Your task to perform on an android device: Search for lg ultragear on costco.com, select the first entry, add it to the cart, then select checkout. Image 0: 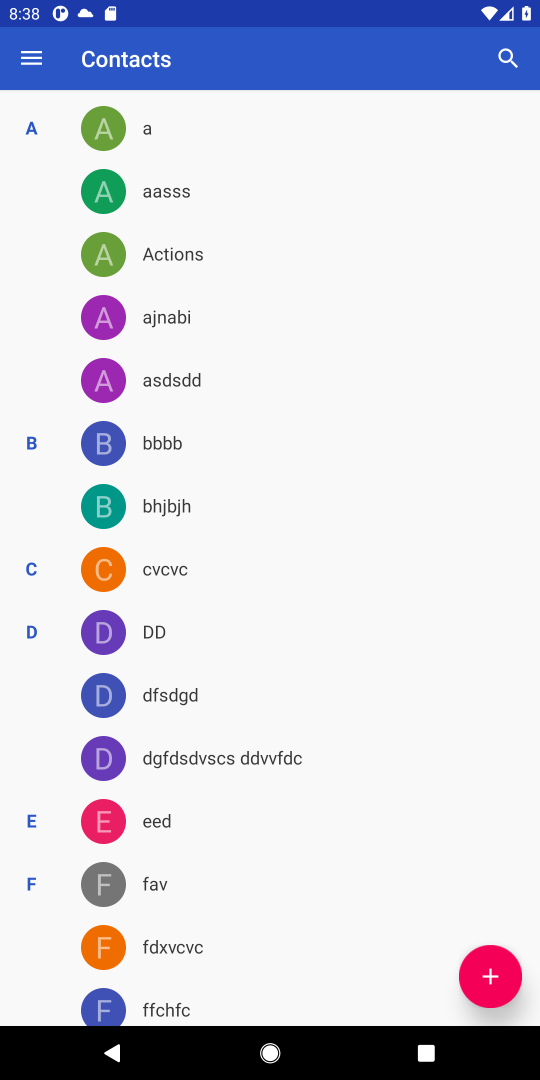
Step 0: press home button
Your task to perform on an android device: Search for lg ultragear on costco.com, select the first entry, add it to the cart, then select checkout. Image 1: 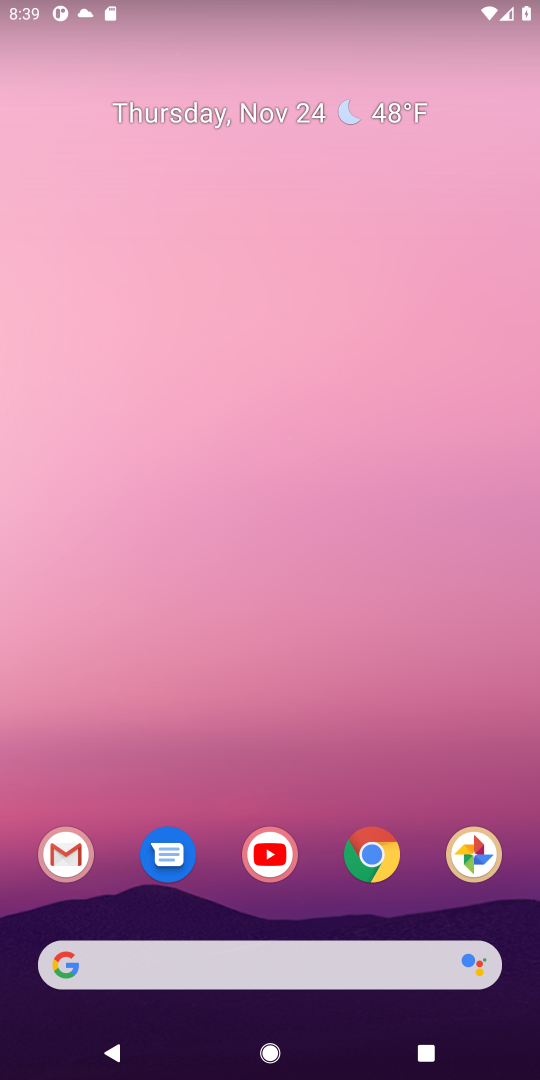
Step 1: click (368, 859)
Your task to perform on an android device: Search for lg ultragear on costco.com, select the first entry, add it to the cart, then select checkout. Image 2: 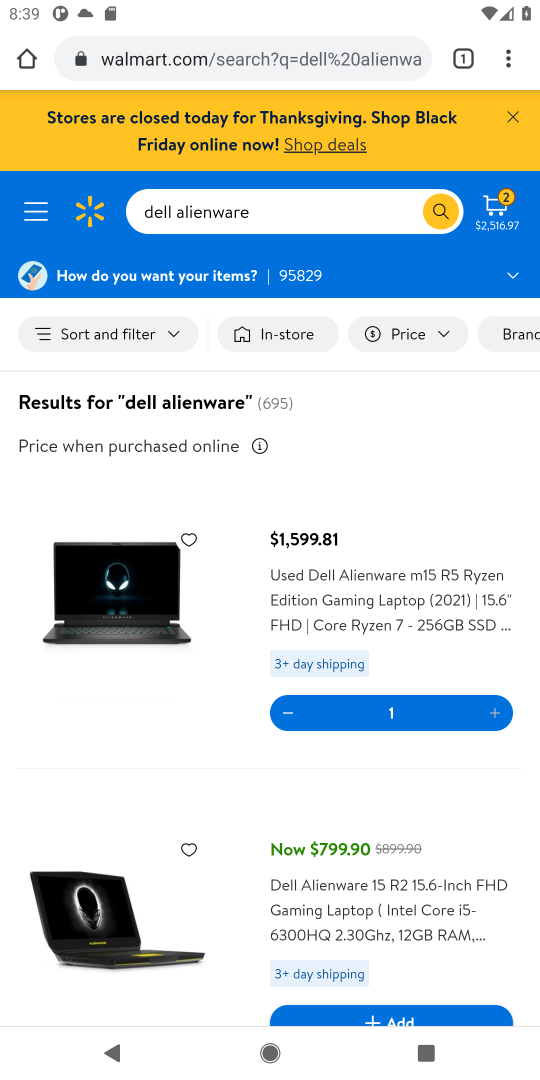
Step 2: click (227, 57)
Your task to perform on an android device: Search for lg ultragear on costco.com, select the first entry, add it to the cart, then select checkout. Image 3: 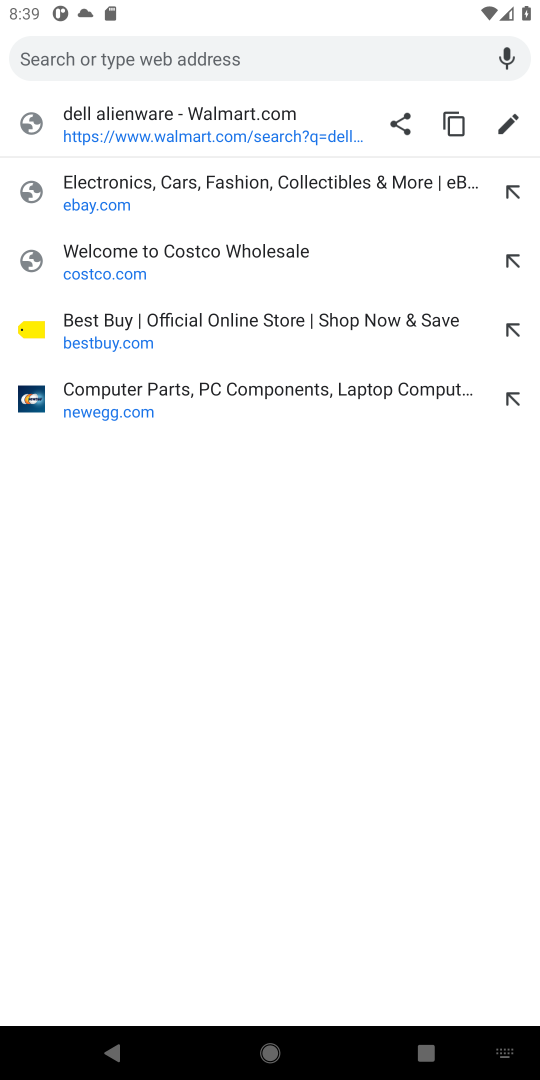
Step 3: click (96, 271)
Your task to perform on an android device: Search for lg ultragear on costco.com, select the first entry, add it to the cart, then select checkout. Image 4: 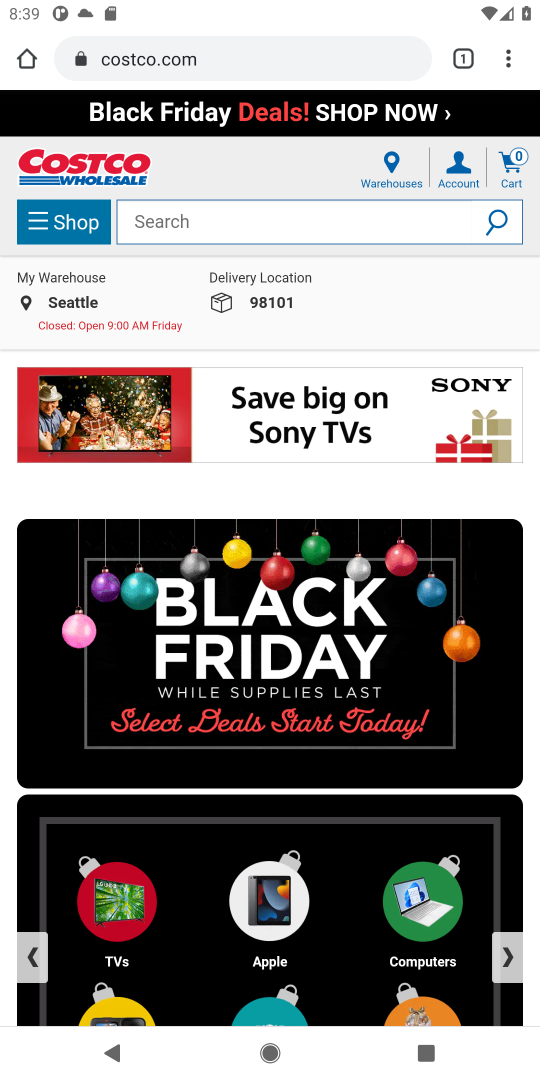
Step 4: click (254, 215)
Your task to perform on an android device: Search for lg ultragear on costco.com, select the first entry, add it to the cart, then select checkout. Image 5: 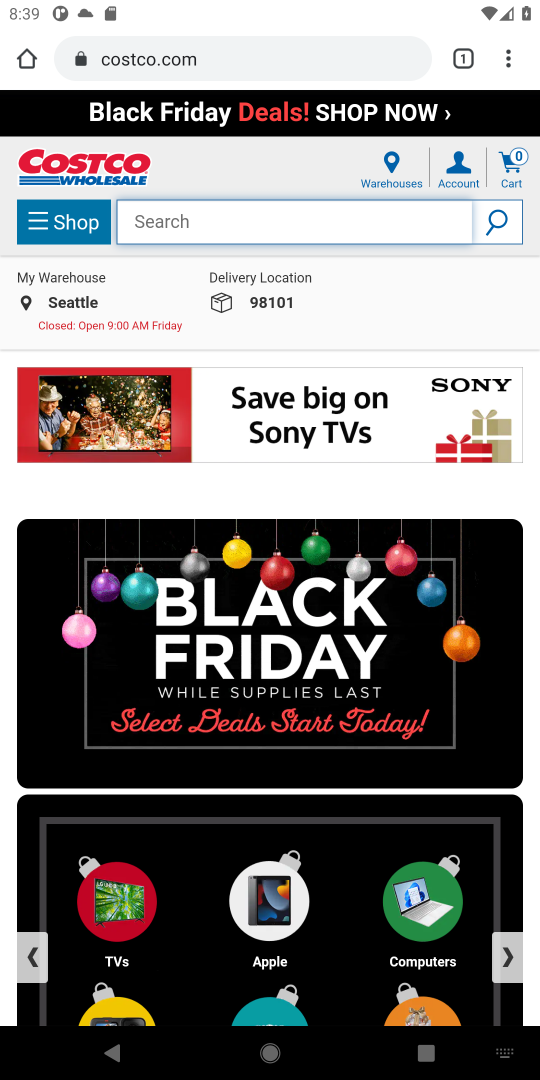
Step 5: type " lg ultragear"
Your task to perform on an android device: Search for lg ultragear on costco.com, select the first entry, add it to the cart, then select checkout. Image 6: 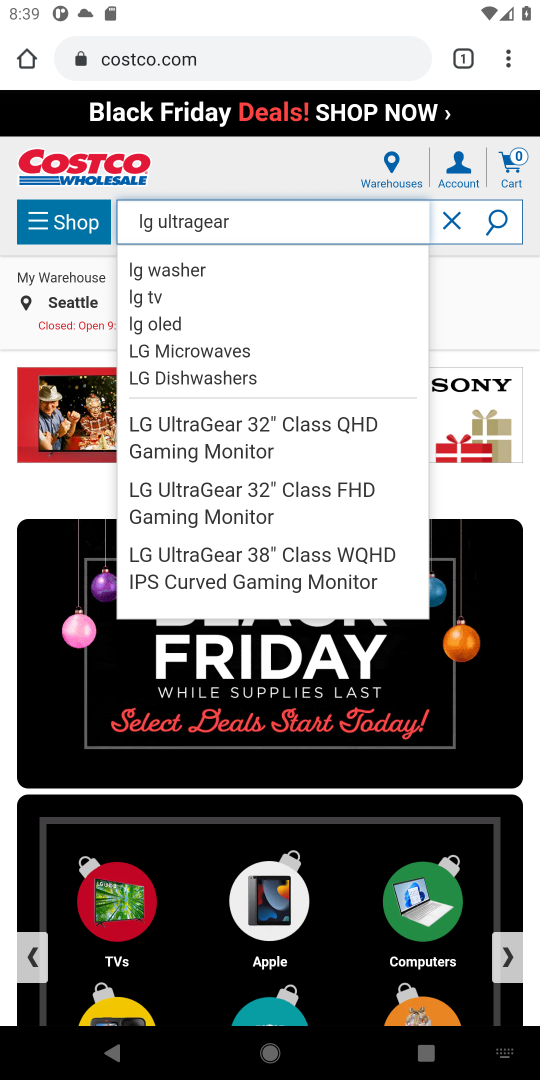
Step 6: click (489, 228)
Your task to perform on an android device: Search for lg ultragear on costco.com, select the first entry, add it to the cart, then select checkout. Image 7: 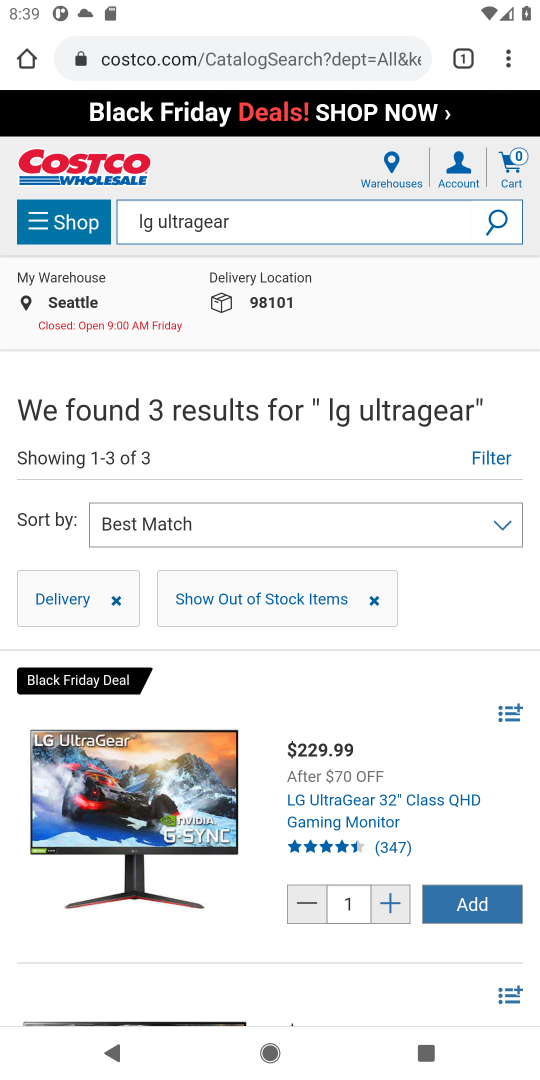
Step 7: click (473, 912)
Your task to perform on an android device: Search for lg ultragear on costco.com, select the first entry, add it to the cart, then select checkout. Image 8: 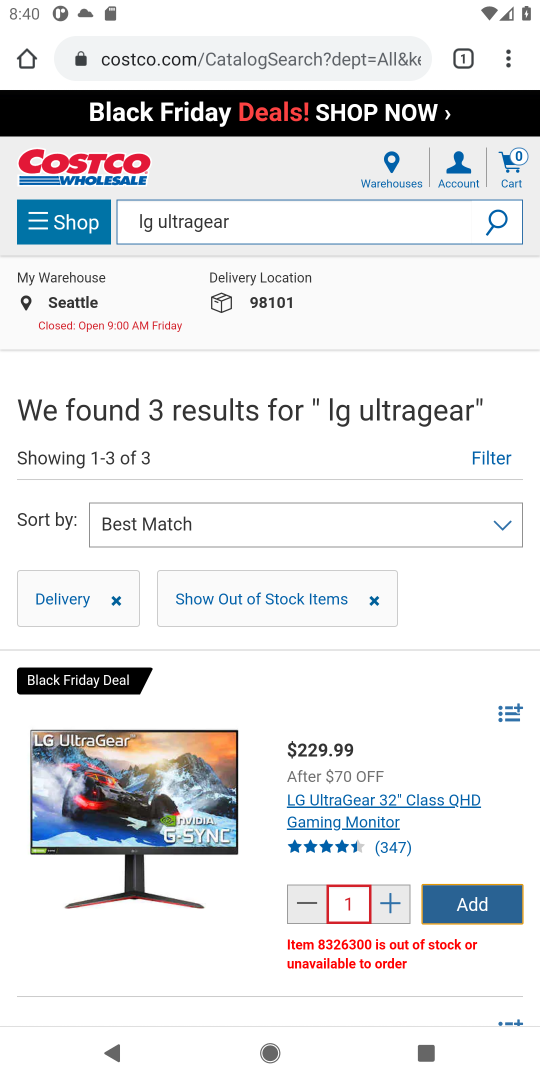
Step 8: drag from (155, 795) to (185, 582)
Your task to perform on an android device: Search for lg ultragear on costco.com, select the first entry, add it to the cart, then select checkout. Image 9: 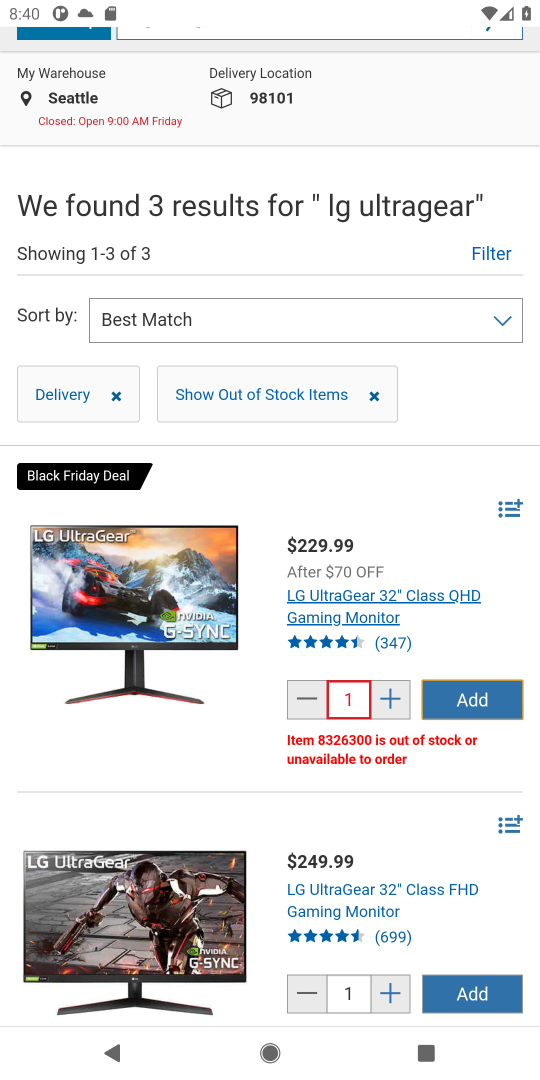
Step 9: click (153, 620)
Your task to perform on an android device: Search for lg ultragear on costco.com, select the first entry, add it to the cart, then select checkout. Image 10: 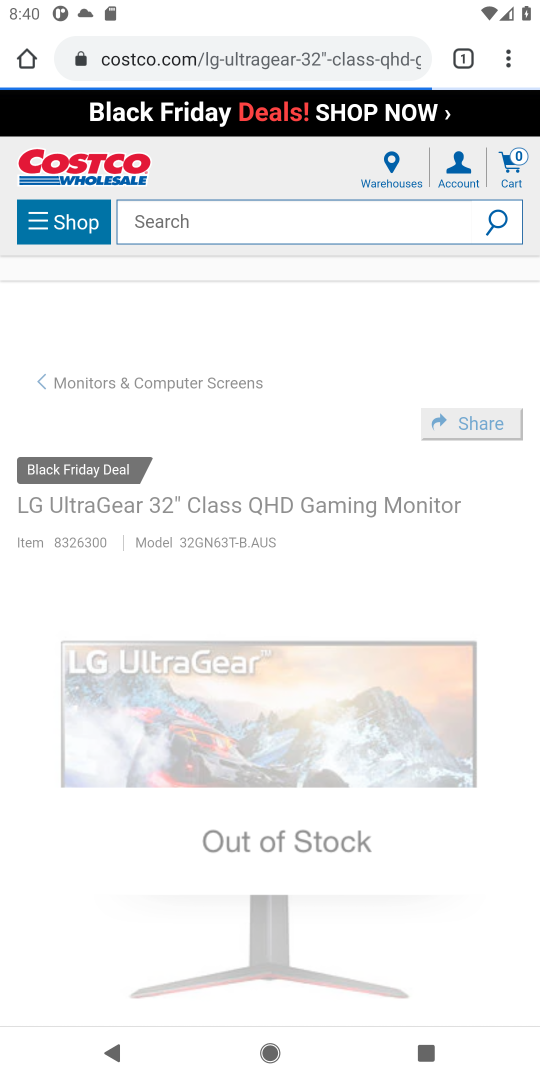
Step 10: task complete